Your task to perform on an android device: check out phone information Image 0: 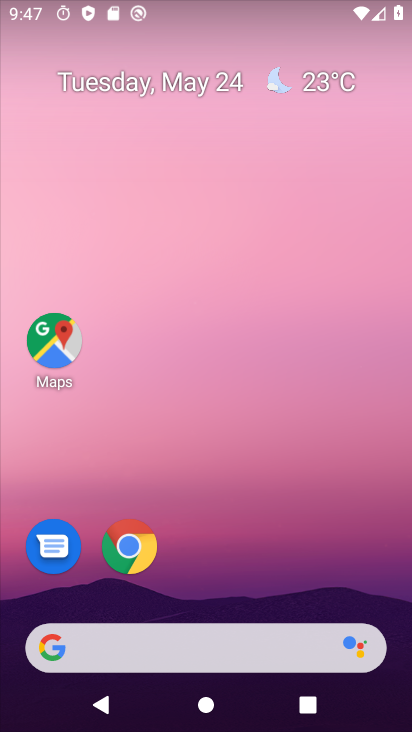
Step 0: drag from (234, 575) to (291, 78)
Your task to perform on an android device: check out phone information Image 1: 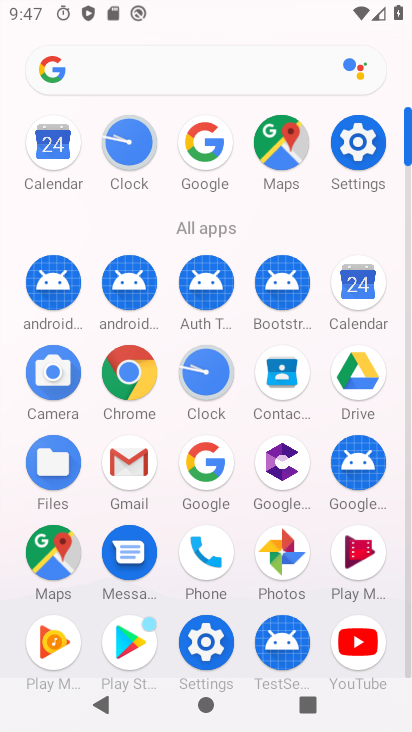
Step 1: click (347, 157)
Your task to perform on an android device: check out phone information Image 2: 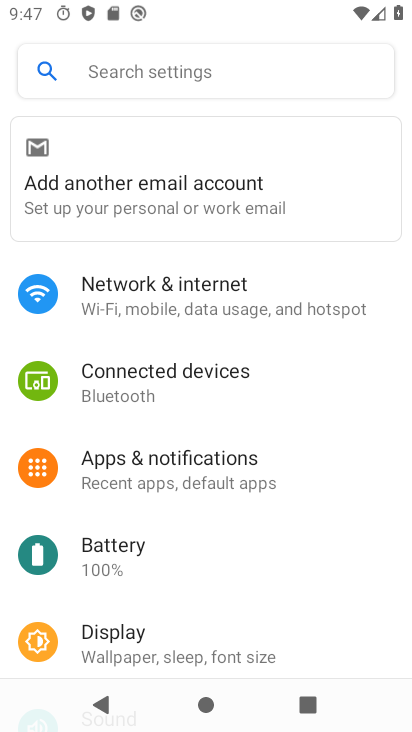
Step 2: drag from (262, 596) to (324, 6)
Your task to perform on an android device: check out phone information Image 3: 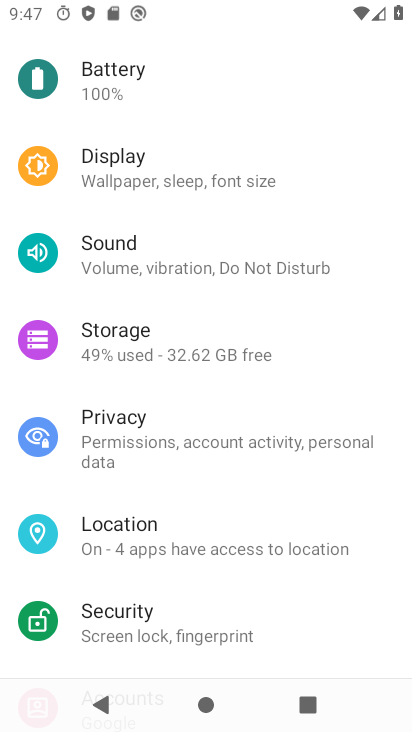
Step 3: drag from (303, 577) to (316, 34)
Your task to perform on an android device: check out phone information Image 4: 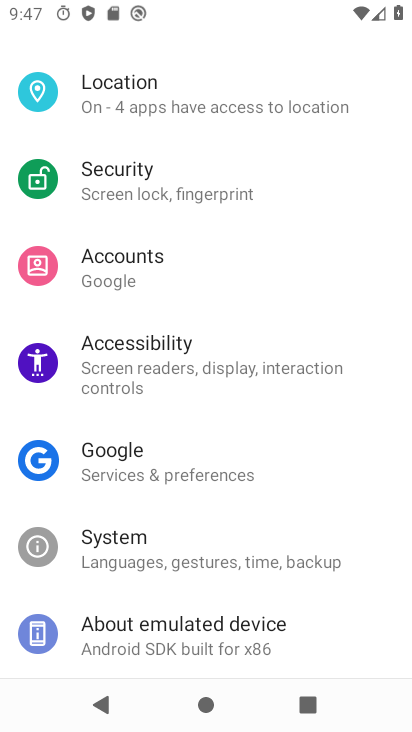
Step 4: click (133, 629)
Your task to perform on an android device: check out phone information Image 5: 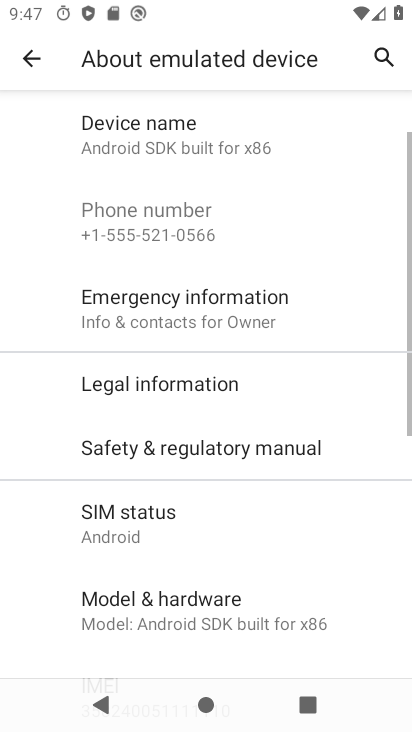
Step 5: task complete